Your task to perform on an android device: open app "NewsBreak: Local News & Alerts" (install if not already installed) Image 0: 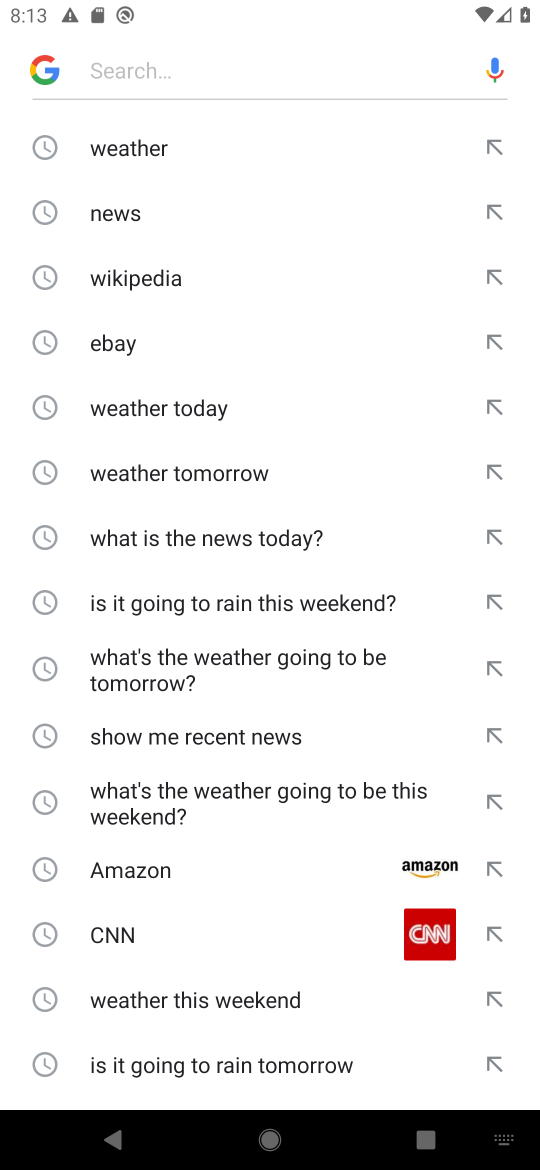
Step 0: press home button
Your task to perform on an android device: open app "NewsBreak: Local News & Alerts" (install if not already installed) Image 1: 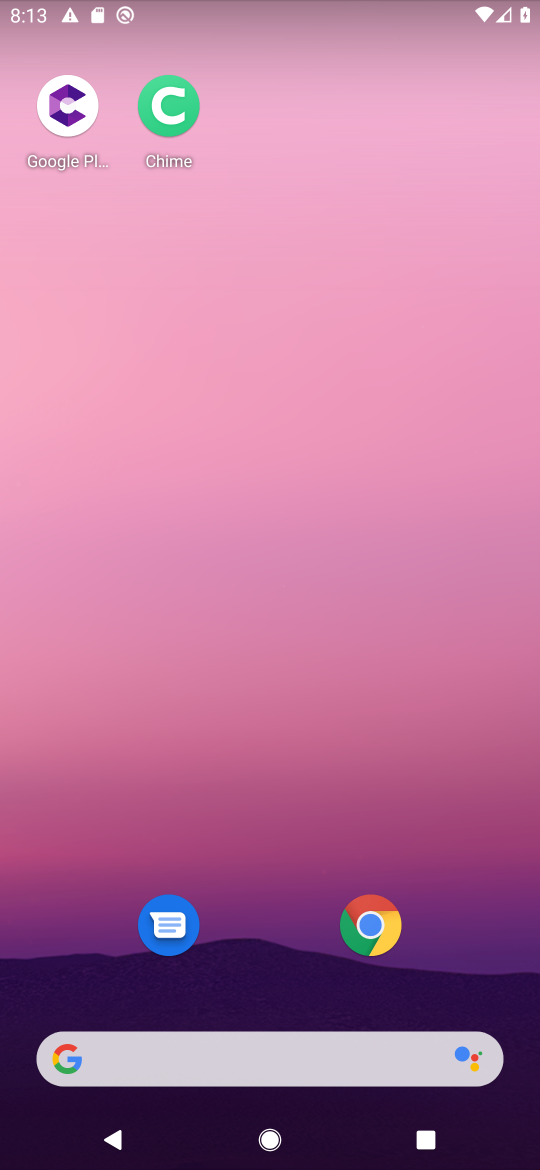
Step 1: drag from (258, 990) to (267, 205)
Your task to perform on an android device: open app "NewsBreak: Local News & Alerts" (install if not already installed) Image 2: 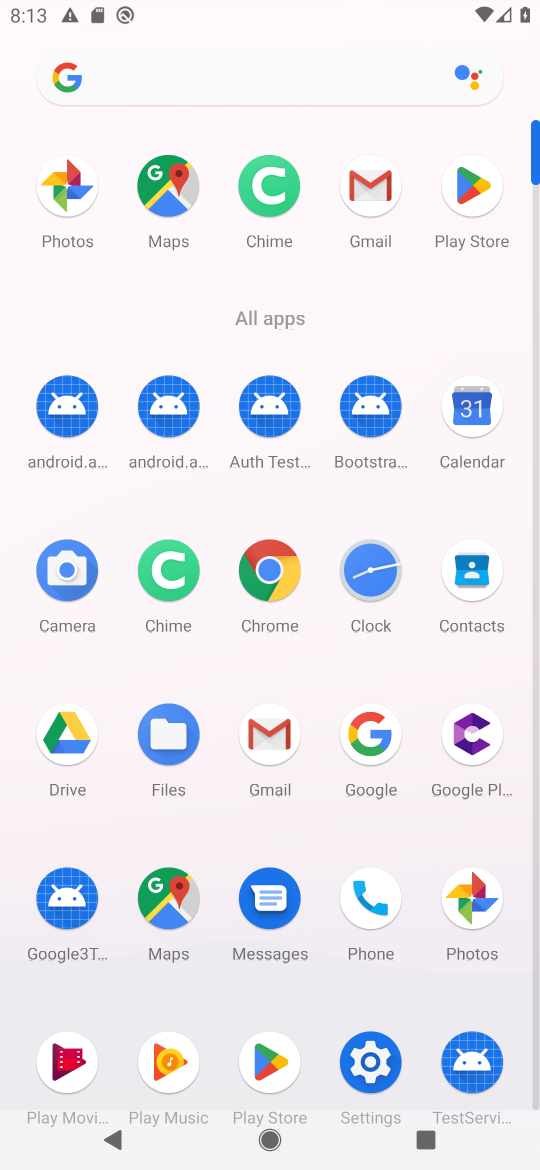
Step 2: click (466, 174)
Your task to perform on an android device: open app "NewsBreak: Local News & Alerts" (install if not already installed) Image 3: 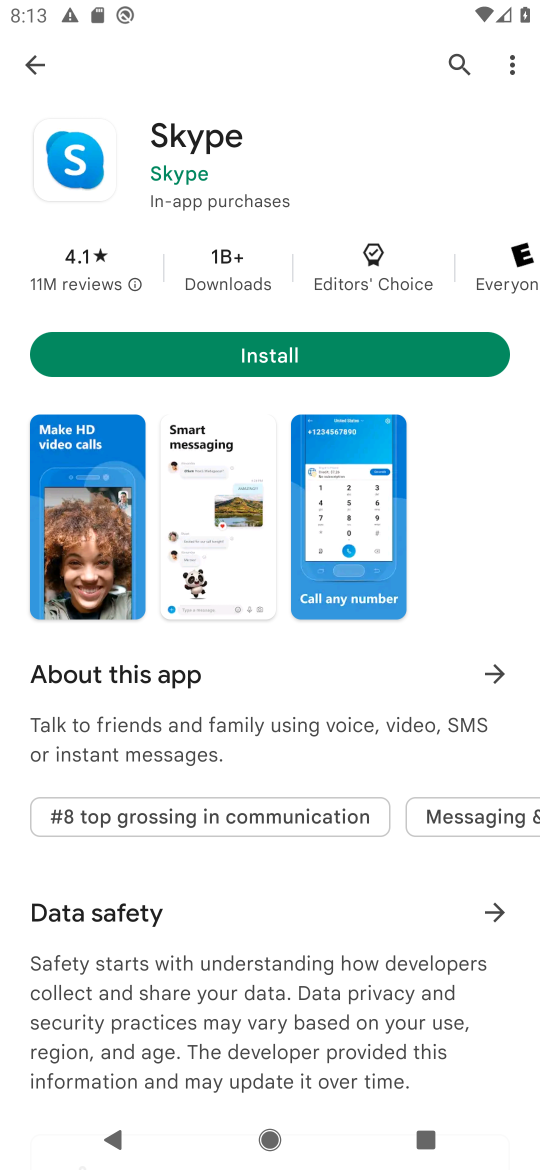
Step 3: click (459, 65)
Your task to perform on an android device: open app "NewsBreak: Local News & Alerts" (install if not already installed) Image 4: 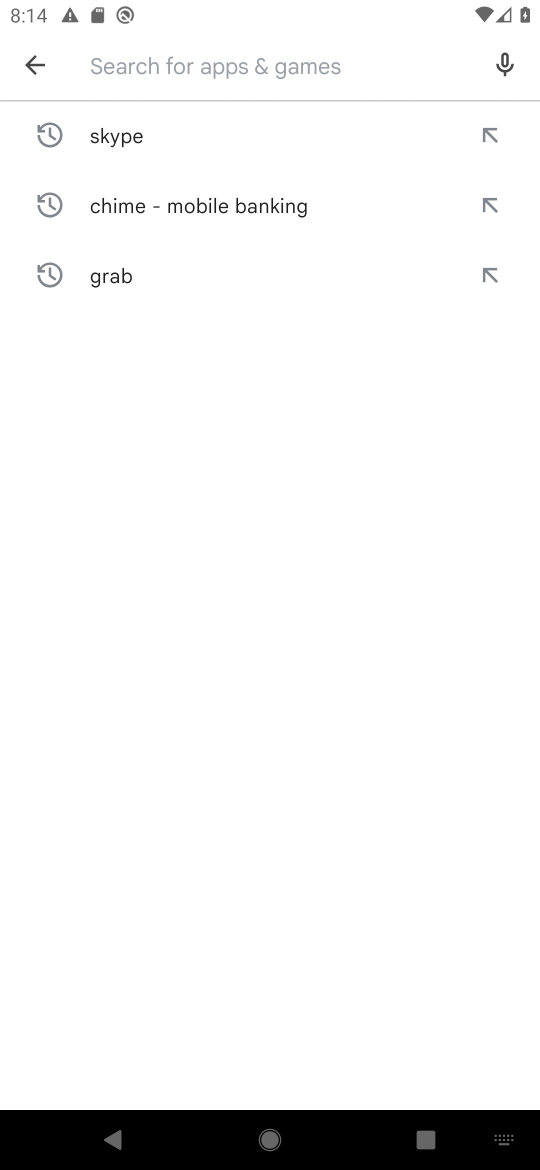
Step 4: type "newsbreak: local news & alerts"
Your task to perform on an android device: open app "NewsBreak: Local News & Alerts" (install if not already installed) Image 5: 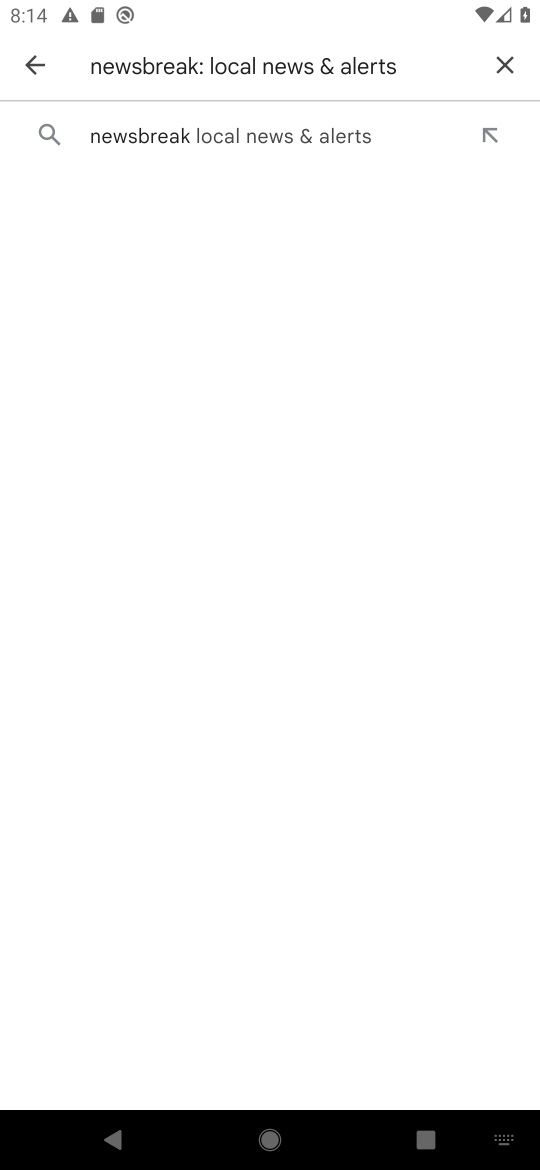
Step 5: click (309, 140)
Your task to perform on an android device: open app "NewsBreak: Local News & Alerts" (install if not already installed) Image 6: 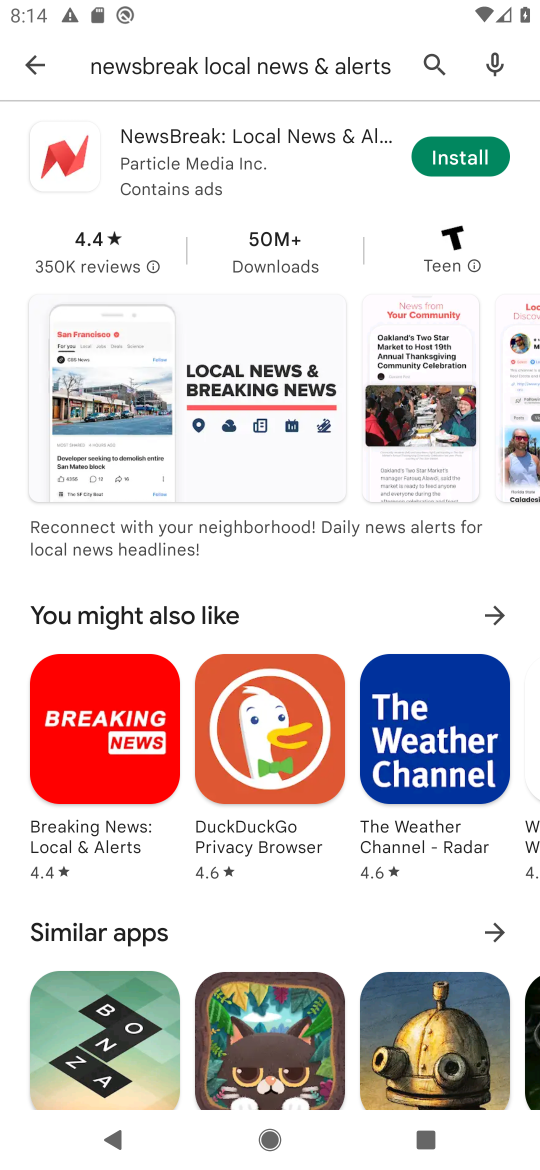
Step 6: click (173, 128)
Your task to perform on an android device: open app "NewsBreak: Local News & Alerts" (install if not already installed) Image 7: 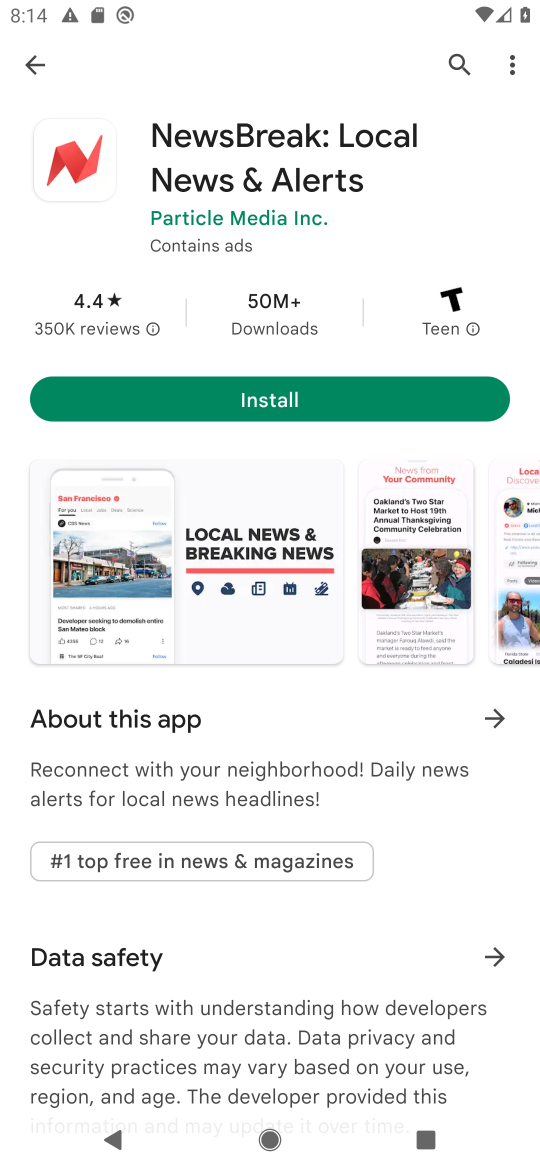
Step 7: click (288, 397)
Your task to perform on an android device: open app "NewsBreak: Local News & Alerts" (install if not already installed) Image 8: 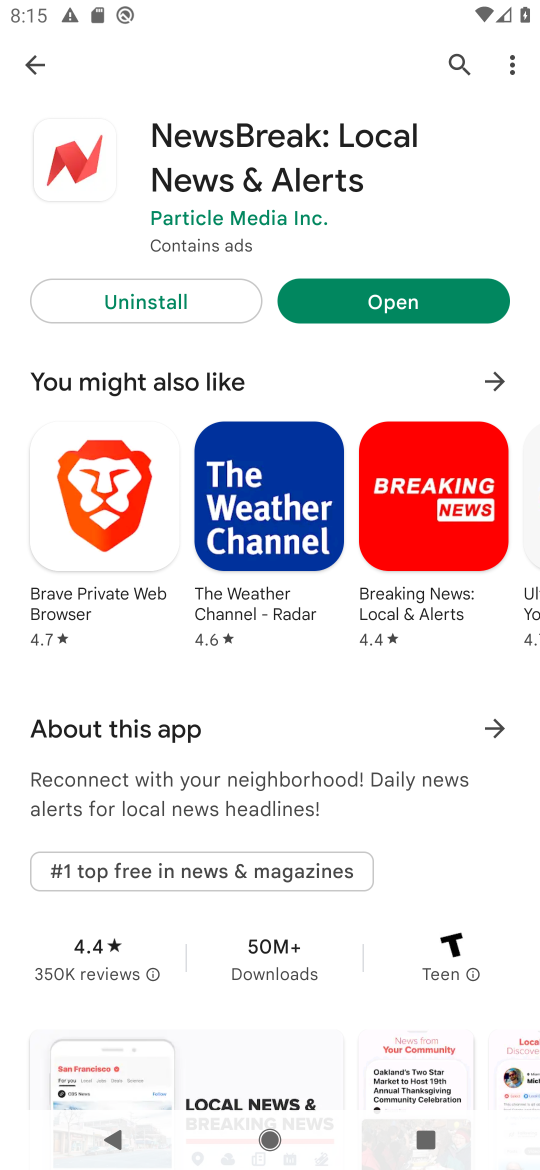
Step 8: click (376, 298)
Your task to perform on an android device: open app "NewsBreak: Local News & Alerts" (install if not already installed) Image 9: 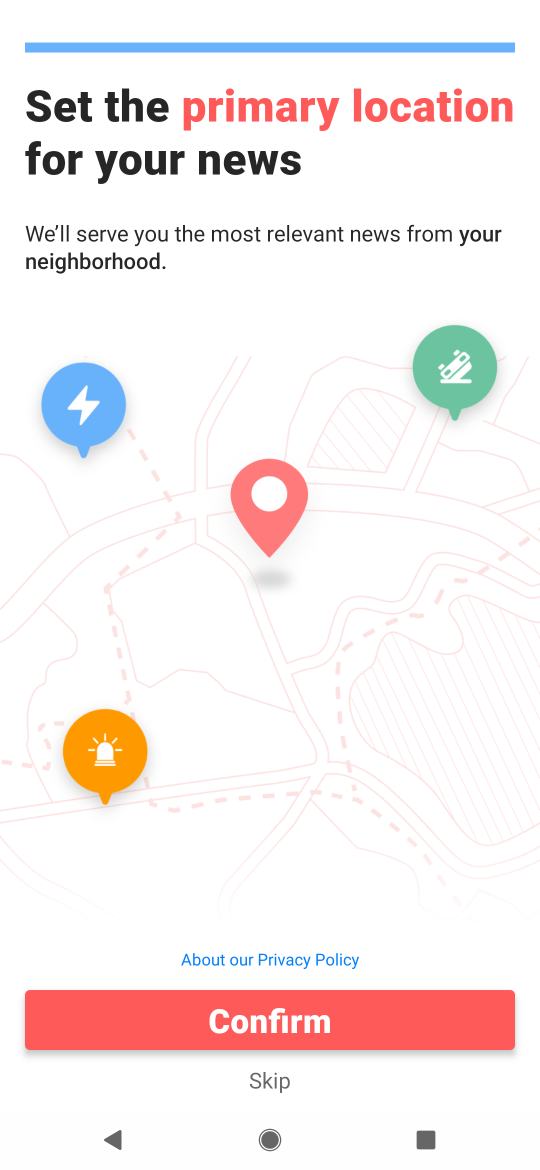
Step 9: task complete